Your task to perform on an android device: check data usage Image 0: 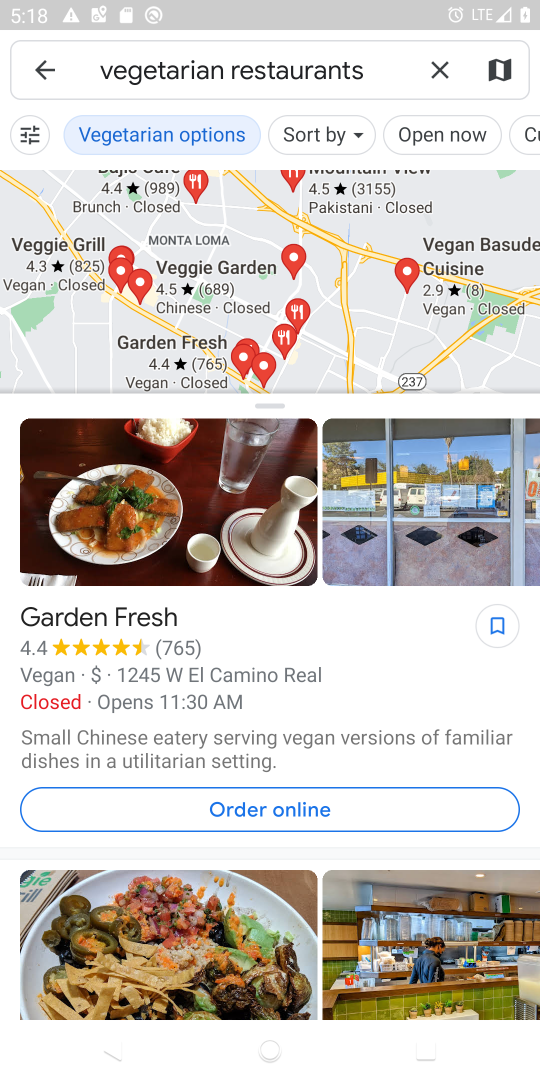
Step 0: press back button
Your task to perform on an android device: check data usage Image 1: 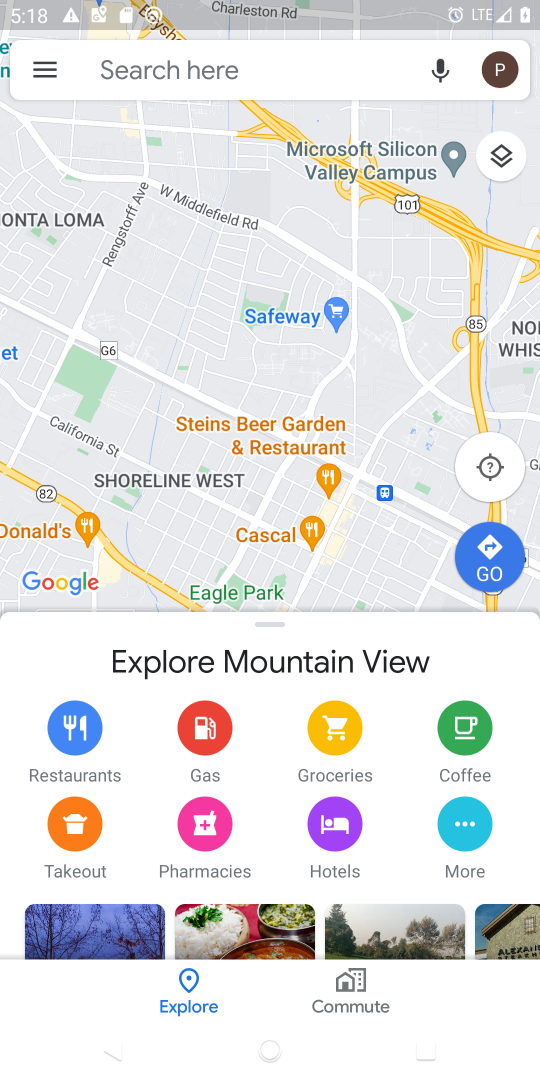
Step 1: press back button
Your task to perform on an android device: check data usage Image 2: 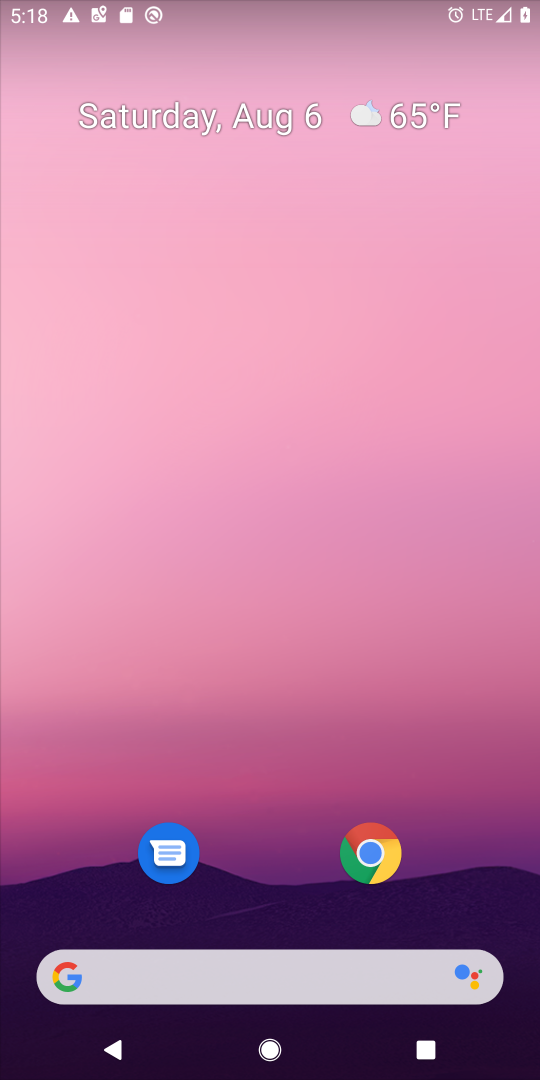
Step 2: drag from (254, 839) to (411, 75)
Your task to perform on an android device: check data usage Image 3: 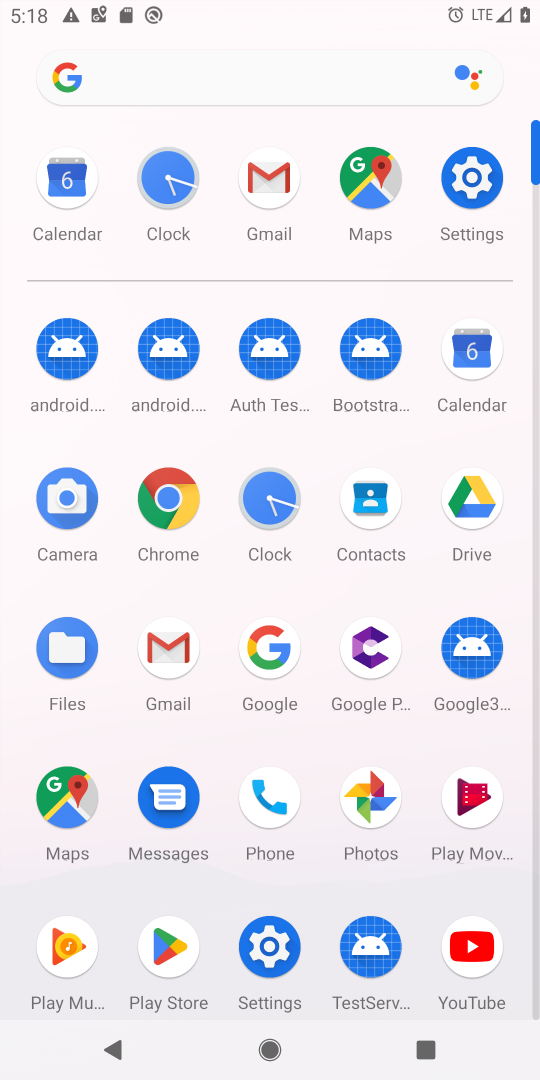
Step 3: click (461, 182)
Your task to perform on an android device: check data usage Image 4: 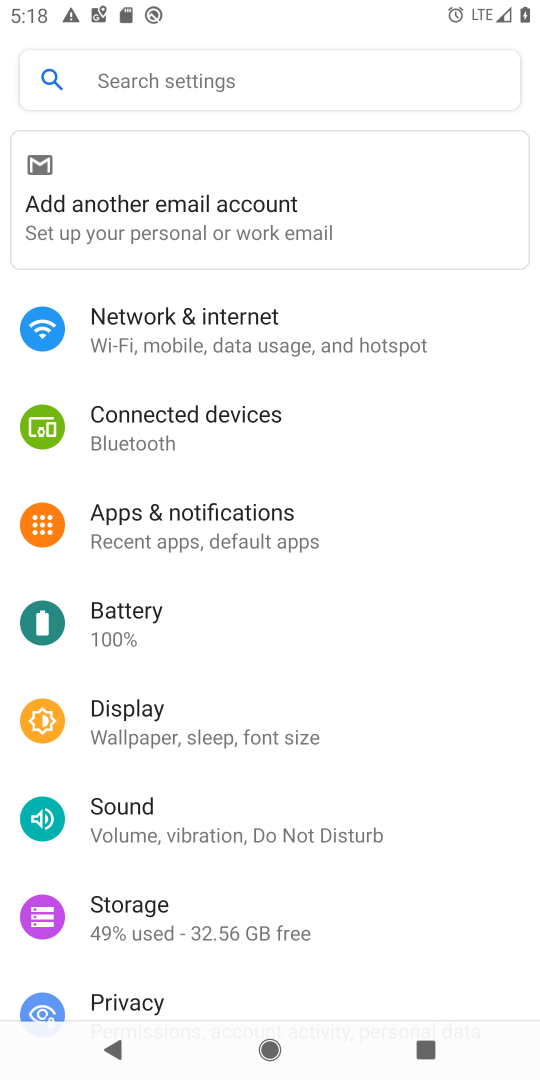
Step 4: click (232, 327)
Your task to perform on an android device: check data usage Image 5: 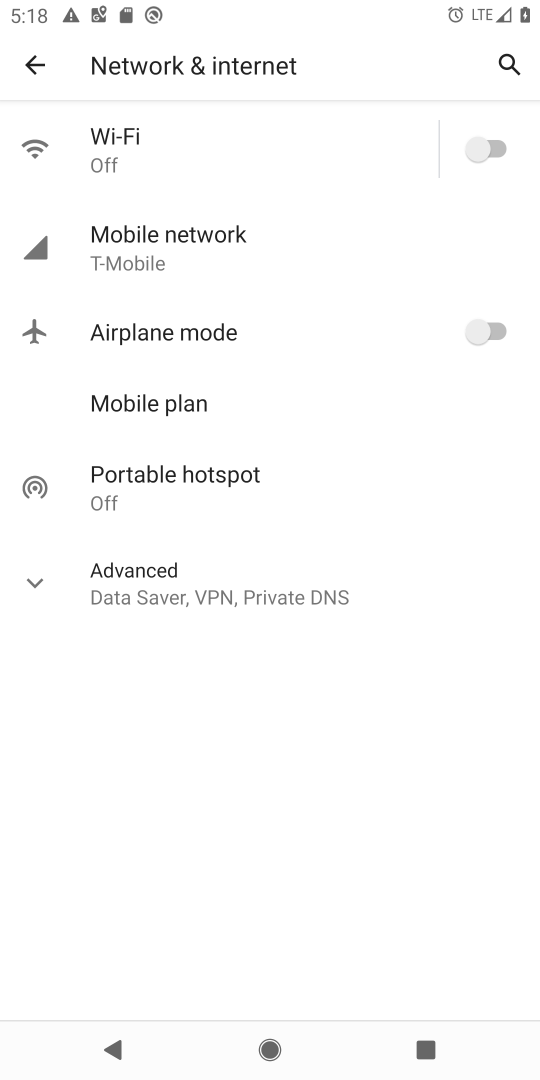
Step 5: click (177, 245)
Your task to perform on an android device: check data usage Image 6: 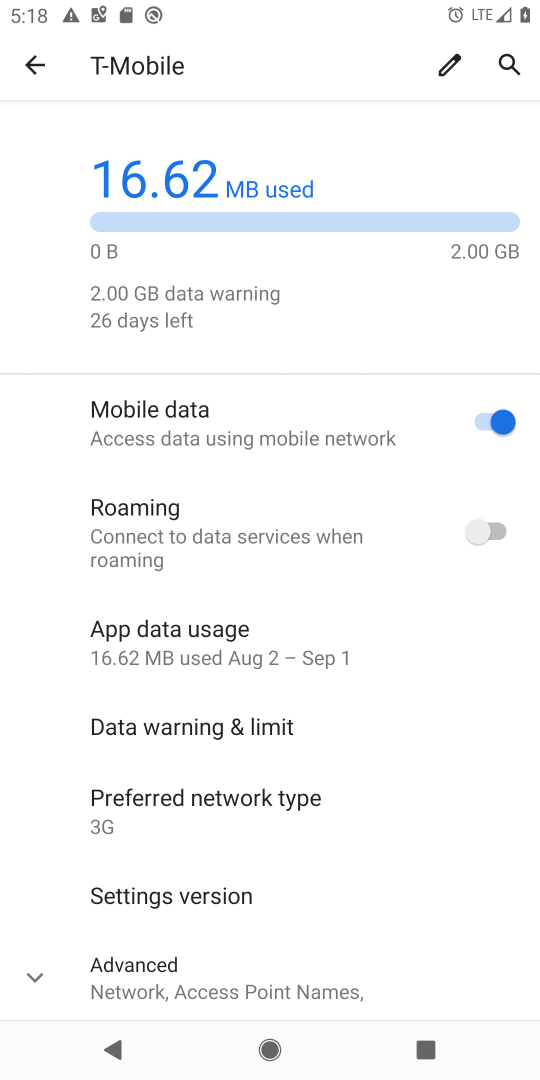
Step 6: click (181, 659)
Your task to perform on an android device: check data usage Image 7: 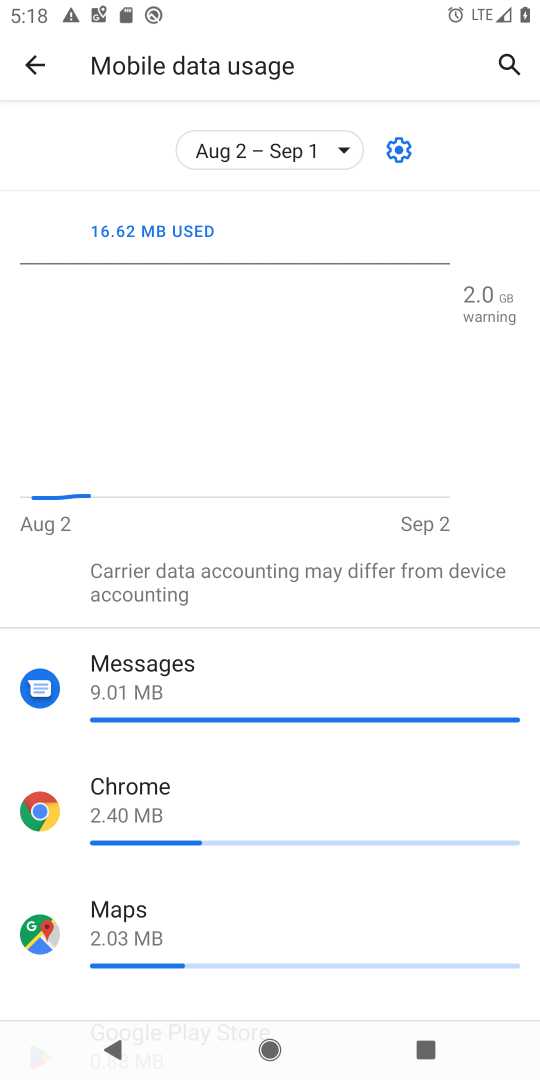
Step 7: task complete